Your task to perform on an android device: What's the weather going to be tomorrow? Image 0: 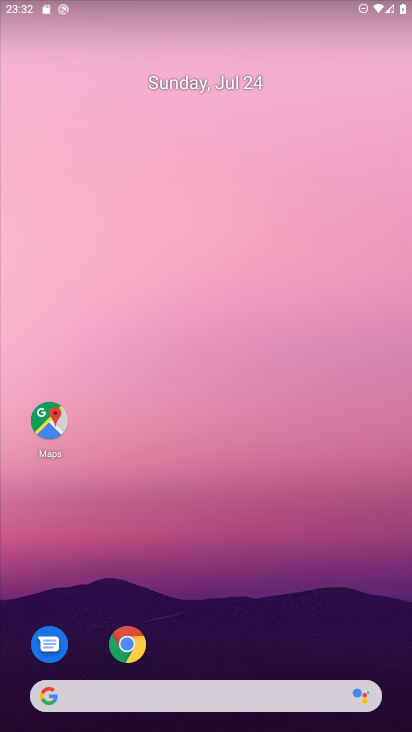
Step 0: drag from (2, 247) to (31, 384)
Your task to perform on an android device: What's the weather going to be tomorrow? Image 1: 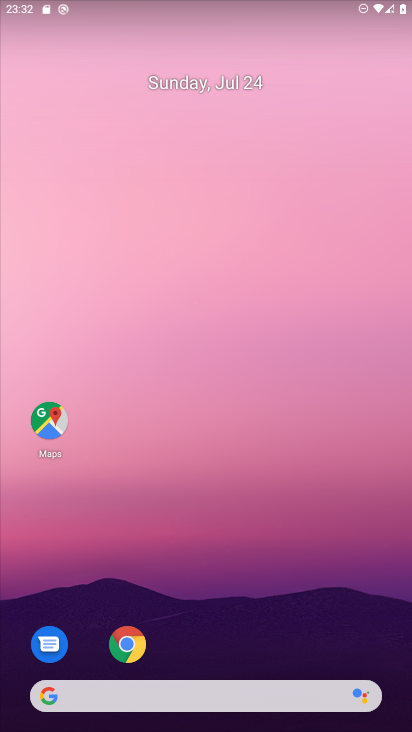
Step 1: click (150, 695)
Your task to perform on an android device: What's the weather going to be tomorrow? Image 2: 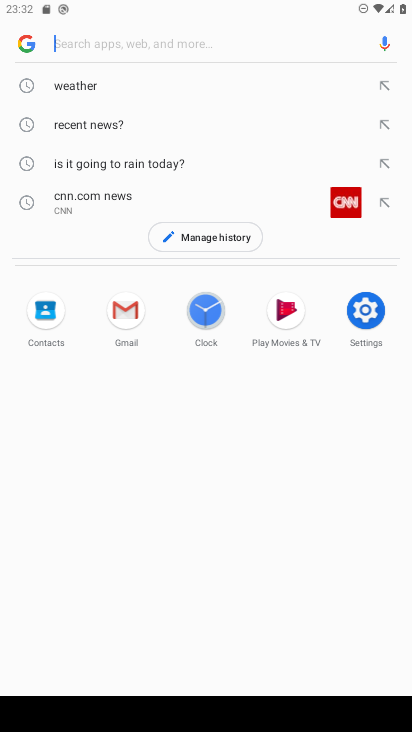
Step 2: click (73, 81)
Your task to perform on an android device: What's the weather going to be tomorrow? Image 3: 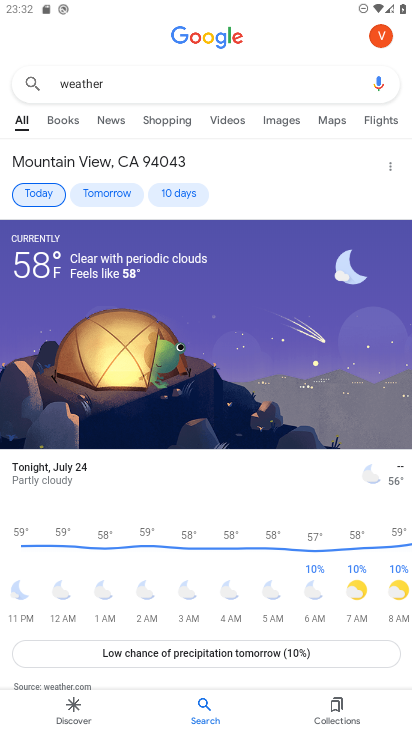
Step 3: click (103, 190)
Your task to perform on an android device: What's the weather going to be tomorrow? Image 4: 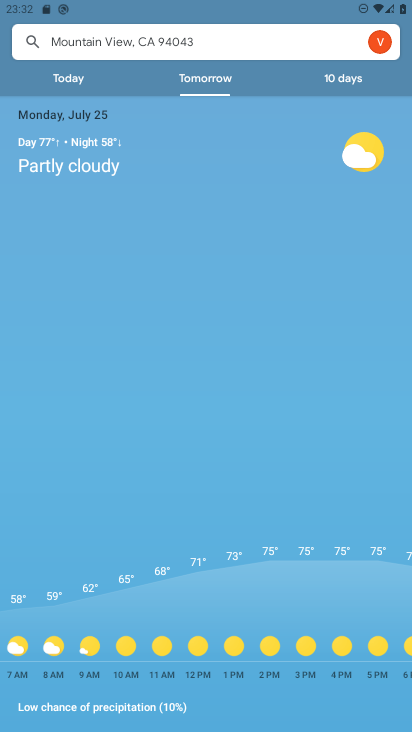
Step 4: task complete